Your task to perform on an android device: find photos in the google photos app Image 0: 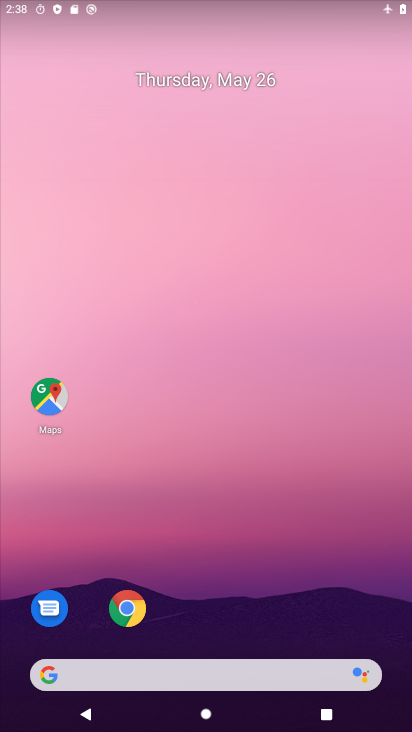
Step 0: drag from (294, 448) to (268, 36)
Your task to perform on an android device: find photos in the google photos app Image 1: 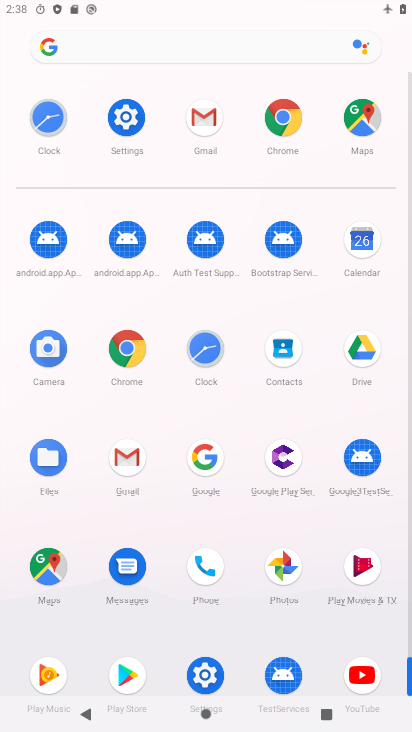
Step 1: click (287, 567)
Your task to perform on an android device: find photos in the google photos app Image 2: 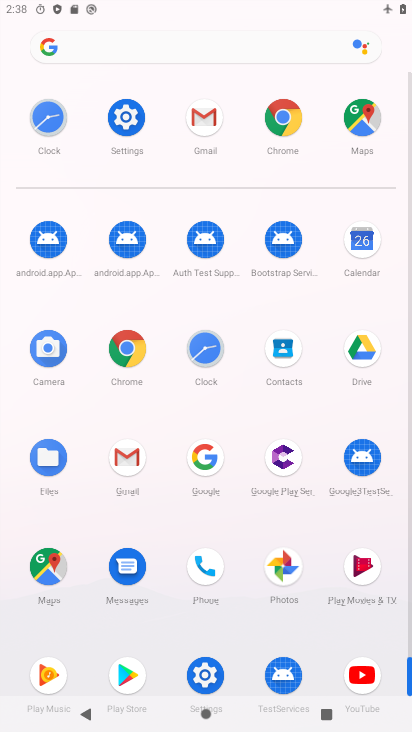
Step 2: click (287, 567)
Your task to perform on an android device: find photos in the google photos app Image 3: 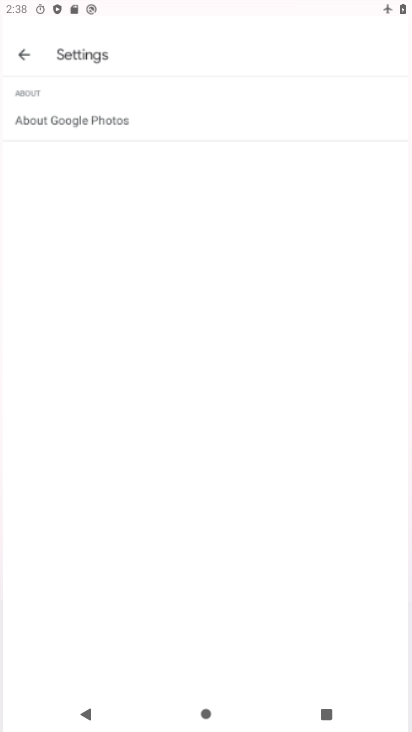
Step 3: click (285, 569)
Your task to perform on an android device: find photos in the google photos app Image 4: 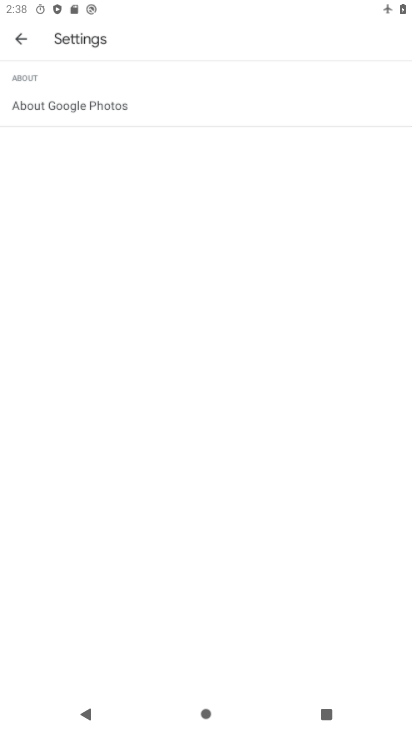
Step 4: click (285, 569)
Your task to perform on an android device: find photos in the google photos app Image 5: 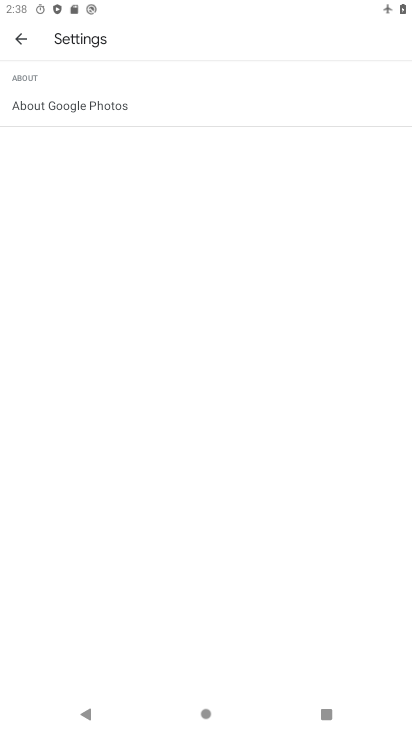
Step 5: click (25, 32)
Your task to perform on an android device: find photos in the google photos app Image 6: 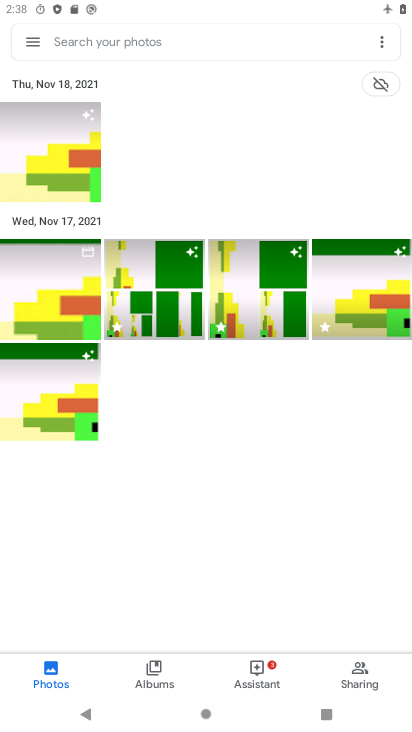
Step 6: task complete